Your task to perform on an android device: Open Reddit Image 0: 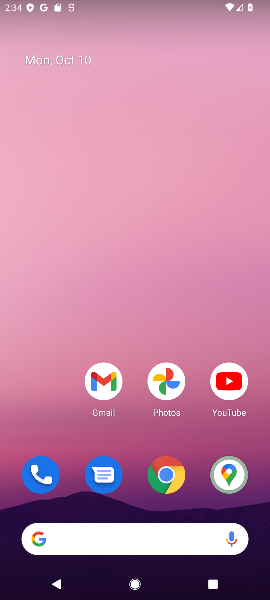
Step 0: drag from (156, 515) to (174, 228)
Your task to perform on an android device: Open Reddit Image 1: 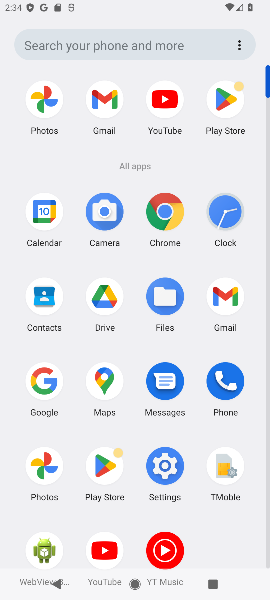
Step 1: task complete